Your task to perform on an android device: Turn on the flashlight Image 0: 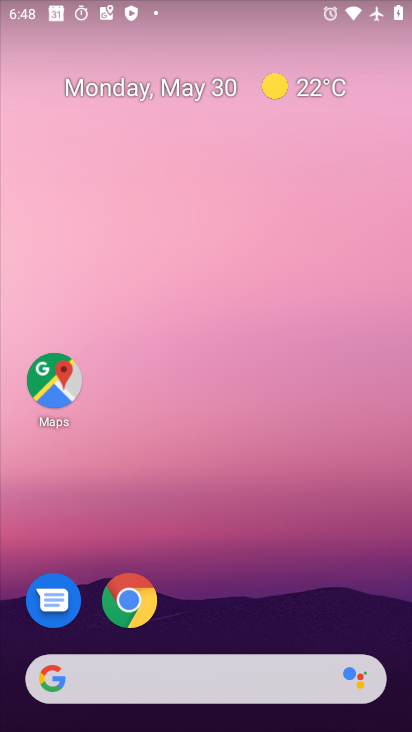
Step 0: press home button
Your task to perform on an android device: Turn on the flashlight Image 1: 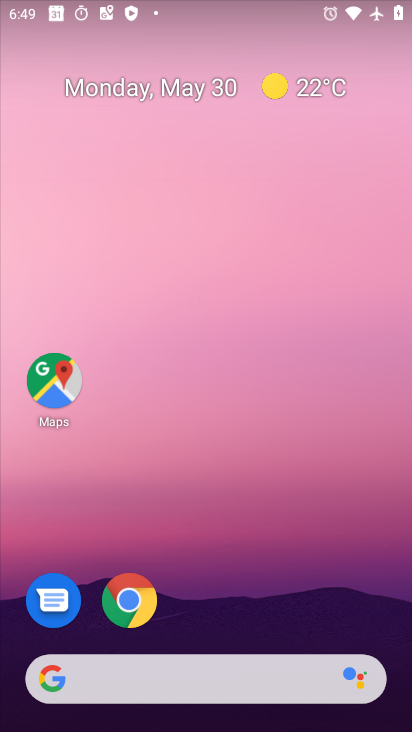
Step 1: task complete